Your task to perform on an android device: Open Amazon Image 0: 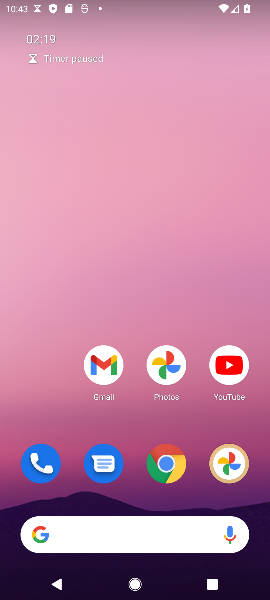
Step 0: click (68, 535)
Your task to perform on an android device: Open Amazon Image 1: 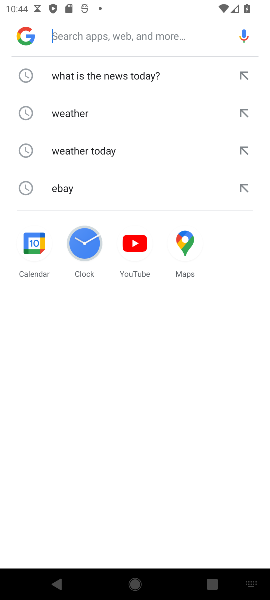
Step 1: type "Amazon"
Your task to perform on an android device: Open Amazon Image 2: 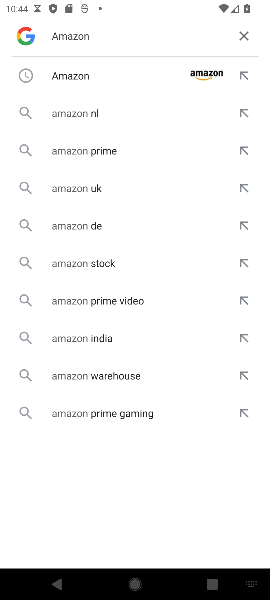
Step 2: click (72, 74)
Your task to perform on an android device: Open Amazon Image 3: 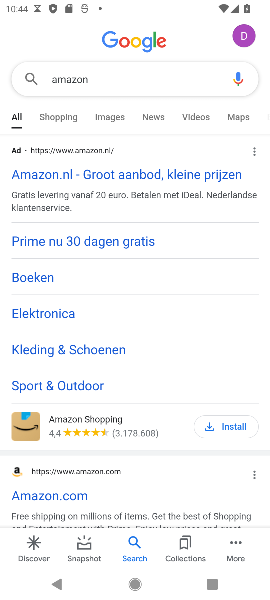
Step 3: task complete